Your task to perform on an android device: Open Chrome and go to the settings page Image 0: 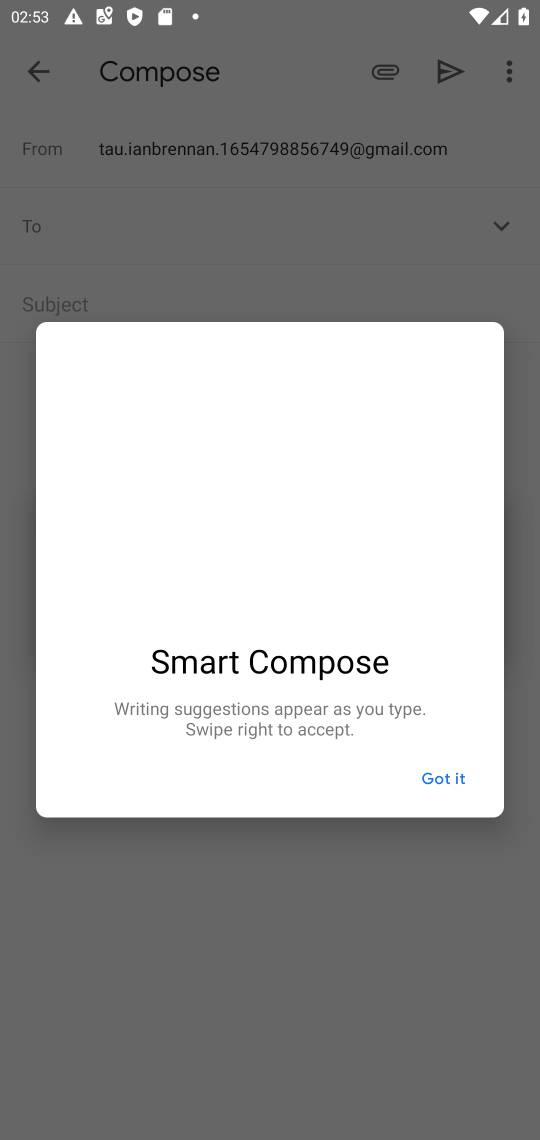
Step 0: press home button
Your task to perform on an android device: Open Chrome and go to the settings page Image 1: 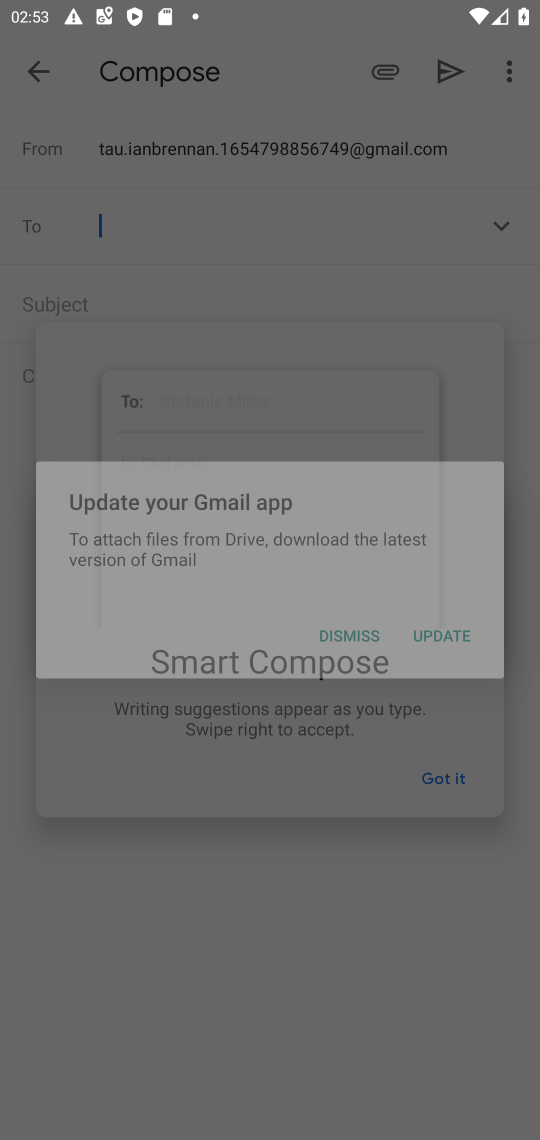
Step 1: press home button
Your task to perform on an android device: Open Chrome and go to the settings page Image 2: 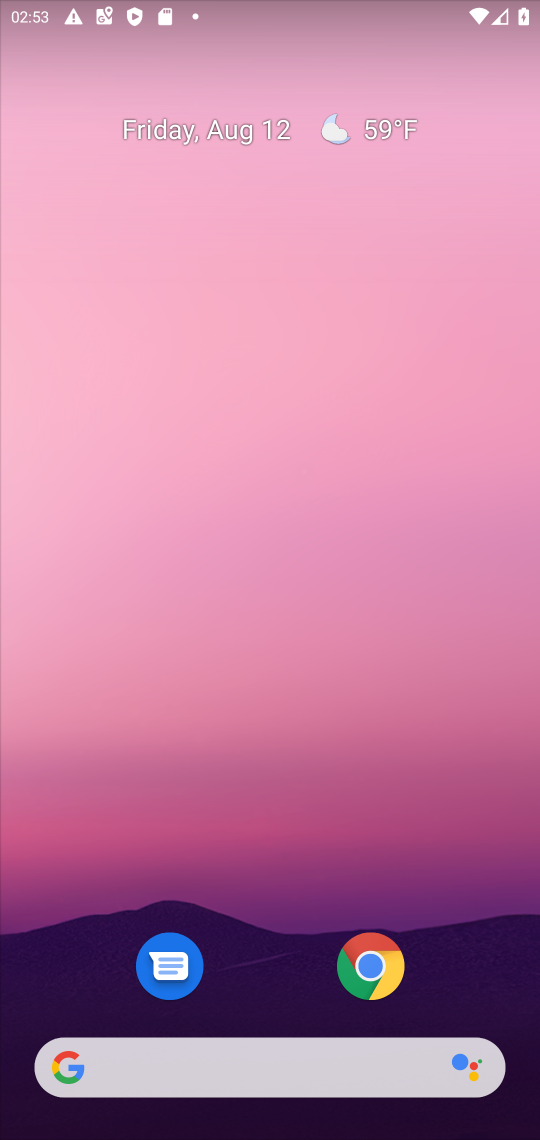
Step 2: drag from (384, 862) to (454, 85)
Your task to perform on an android device: Open Chrome and go to the settings page Image 3: 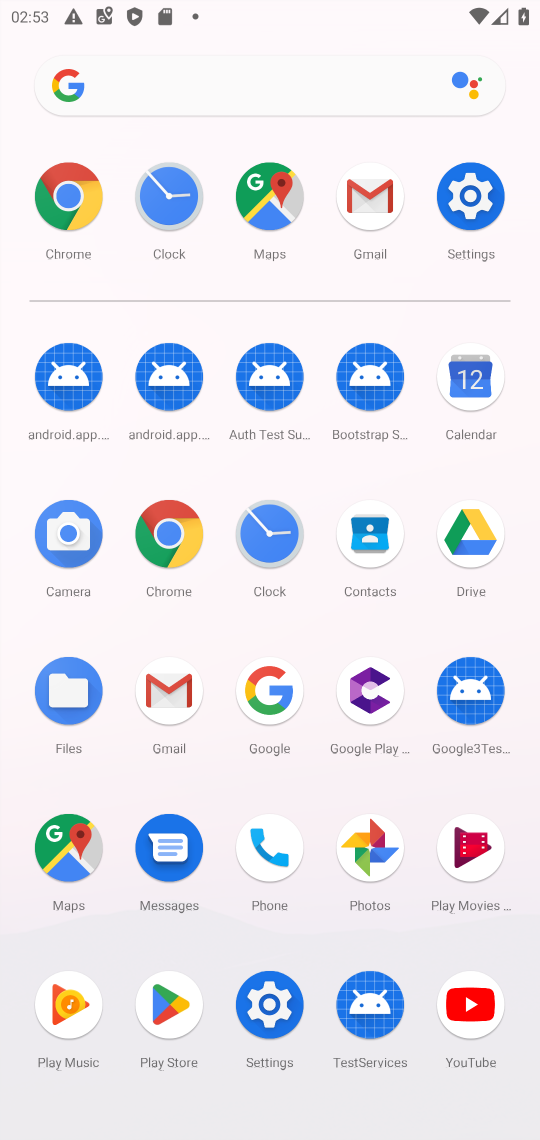
Step 3: click (171, 536)
Your task to perform on an android device: Open Chrome and go to the settings page Image 4: 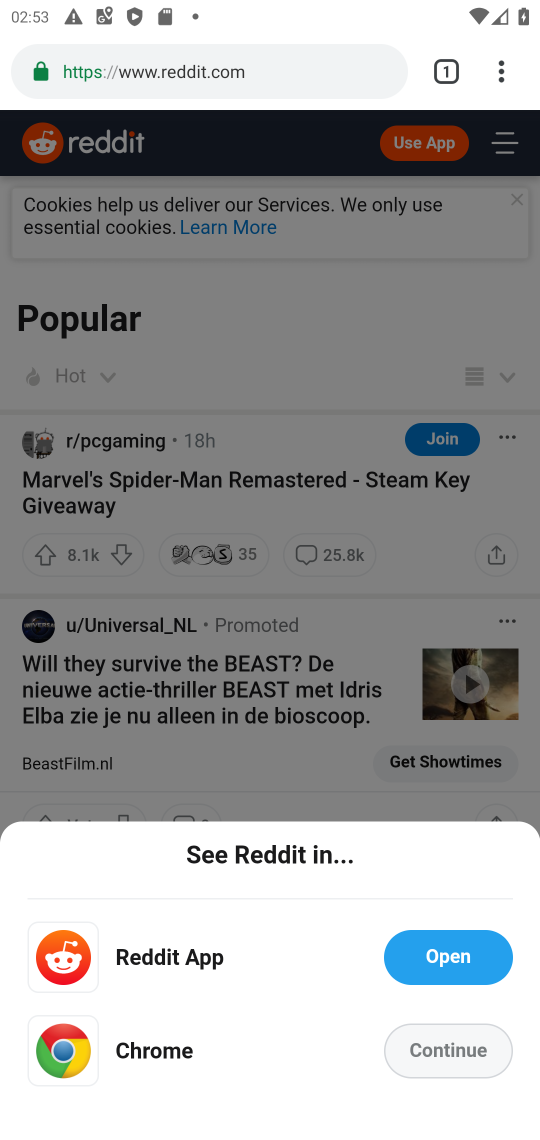
Step 4: task complete